Your task to perform on an android device: turn off priority inbox in the gmail app Image 0: 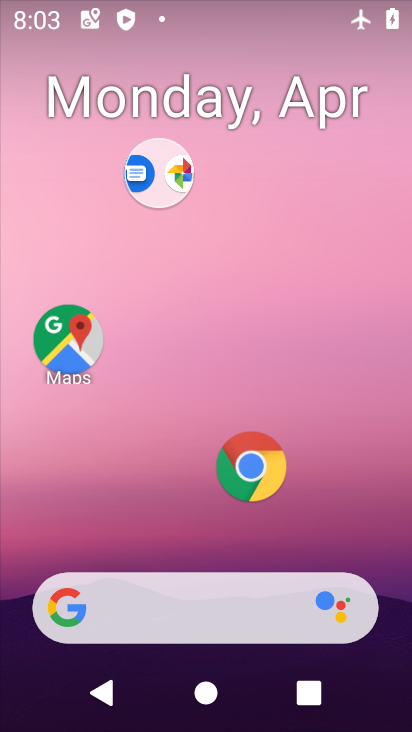
Step 0: drag from (198, 480) to (234, 128)
Your task to perform on an android device: turn off priority inbox in the gmail app Image 1: 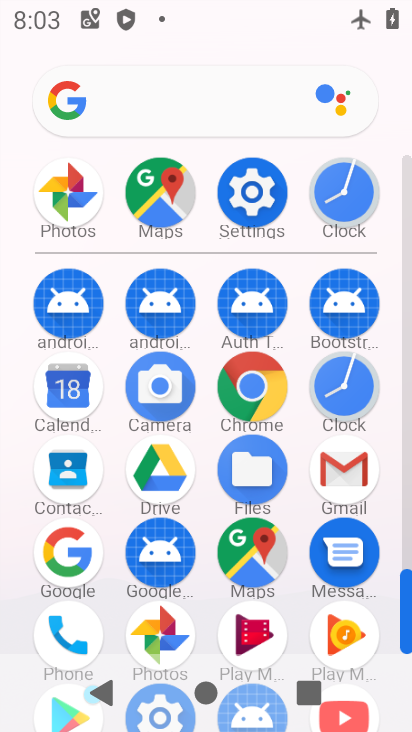
Step 1: click (341, 451)
Your task to perform on an android device: turn off priority inbox in the gmail app Image 2: 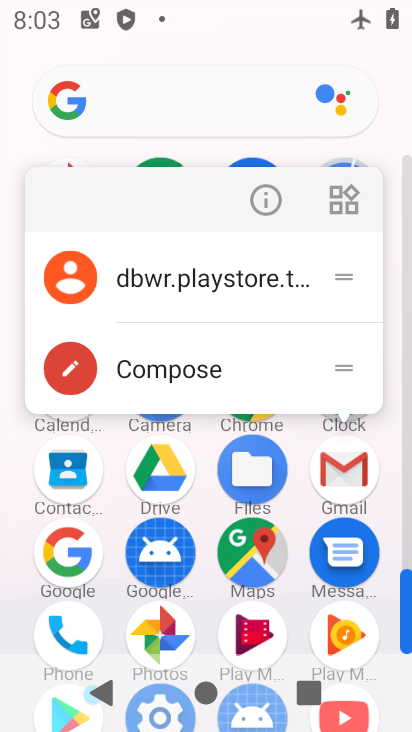
Step 2: click (273, 196)
Your task to perform on an android device: turn off priority inbox in the gmail app Image 3: 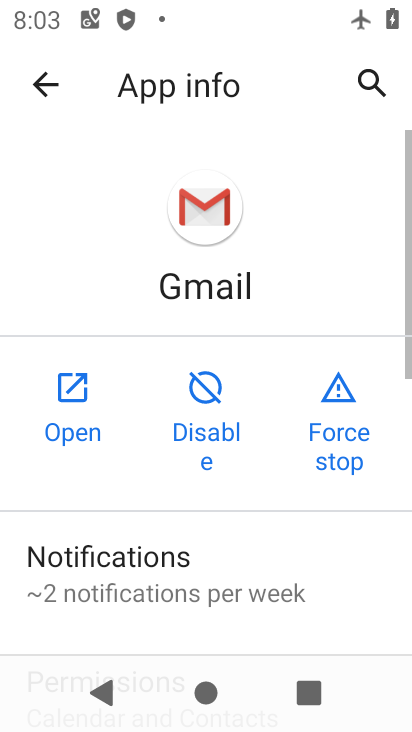
Step 3: click (84, 373)
Your task to perform on an android device: turn off priority inbox in the gmail app Image 4: 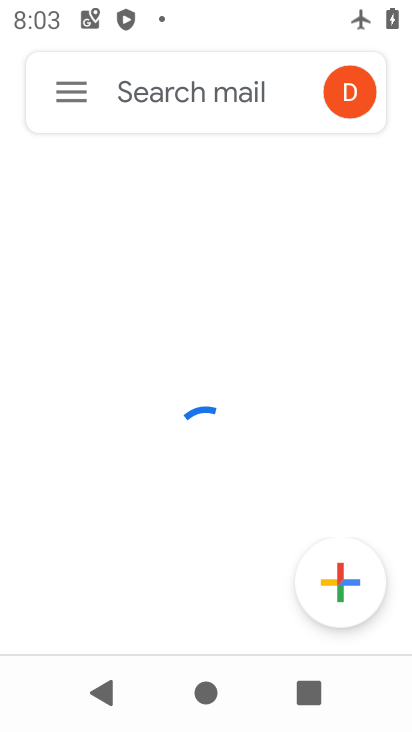
Step 4: drag from (200, 567) to (216, 257)
Your task to perform on an android device: turn off priority inbox in the gmail app Image 5: 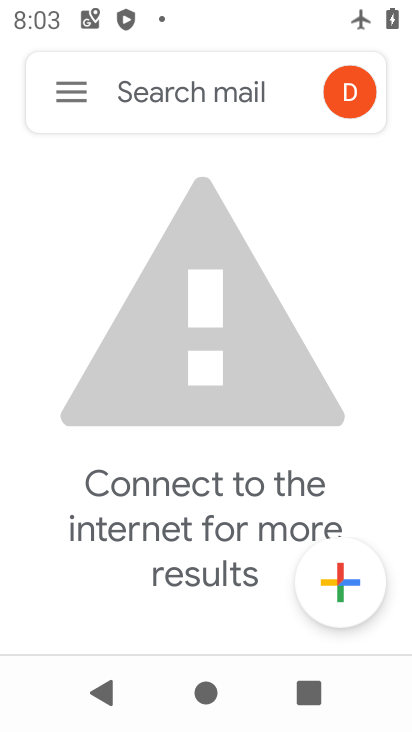
Step 5: drag from (250, 501) to (264, 329)
Your task to perform on an android device: turn off priority inbox in the gmail app Image 6: 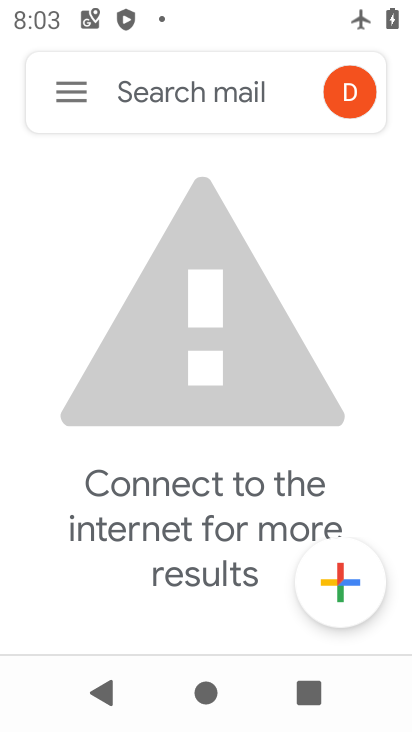
Step 6: drag from (155, 607) to (208, 339)
Your task to perform on an android device: turn off priority inbox in the gmail app Image 7: 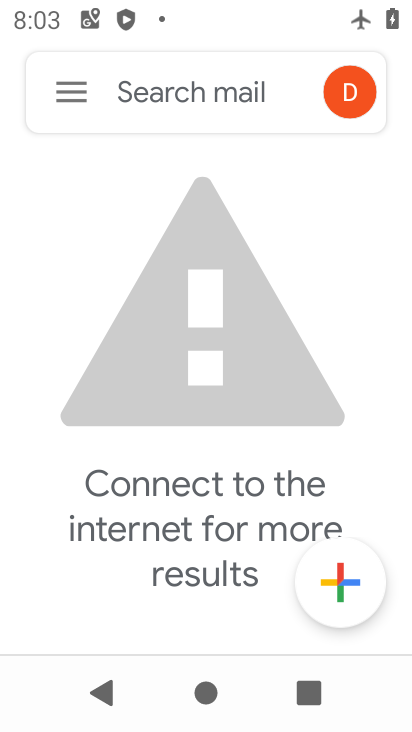
Step 7: drag from (193, 577) to (217, 329)
Your task to perform on an android device: turn off priority inbox in the gmail app Image 8: 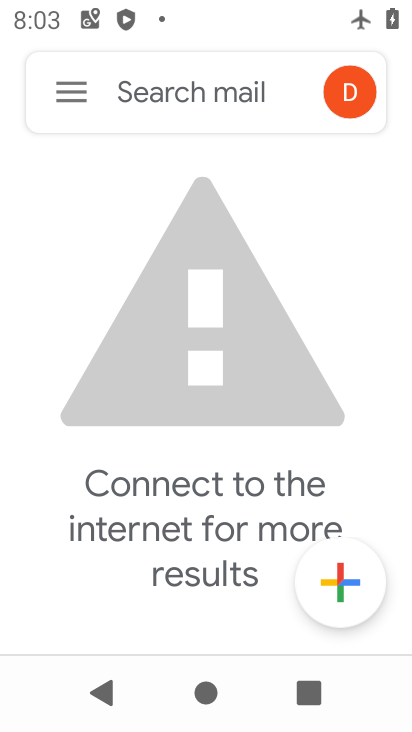
Step 8: drag from (171, 553) to (205, 296)
Your task to perform on an android device: turn off priority inbox in the gmail app Image 9: 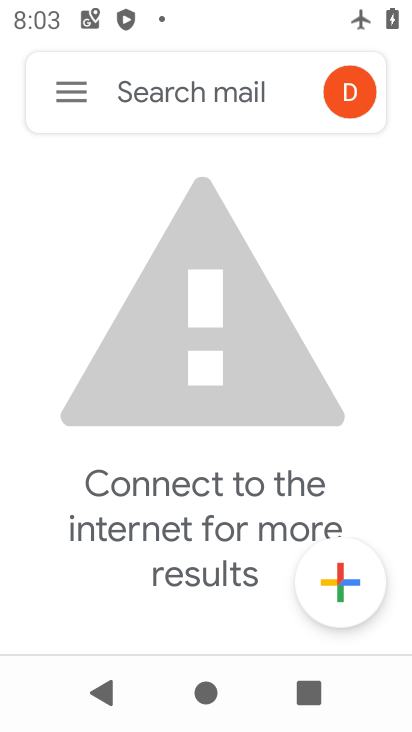
Step 9: drag from (229, 585) to (208, 407)
Your task to perform on an android device: turn off priority inbox in the gmail app Image 10: 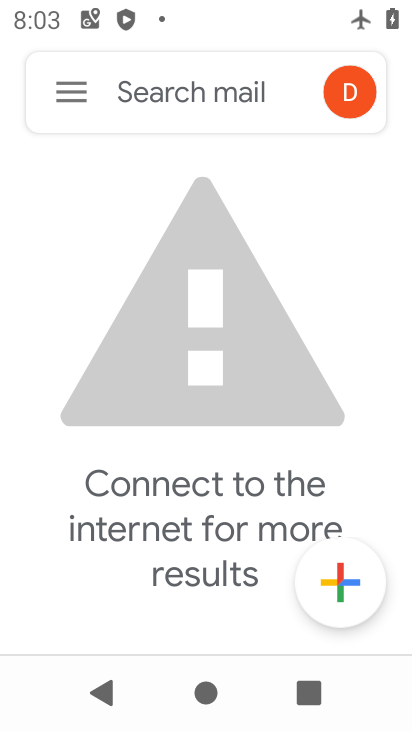
Step 10: click (71, 98)
Your task to perform on an android device: turn off priority inbox in the gmail app Image 11: 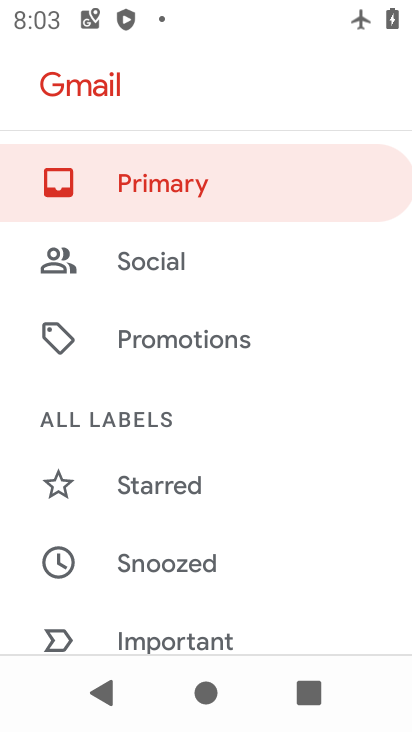
Step 11: drag from (146, 586) to (156, 185)
Your task to perform on an android device: turn off priority inbox in the gmail app Image 12: 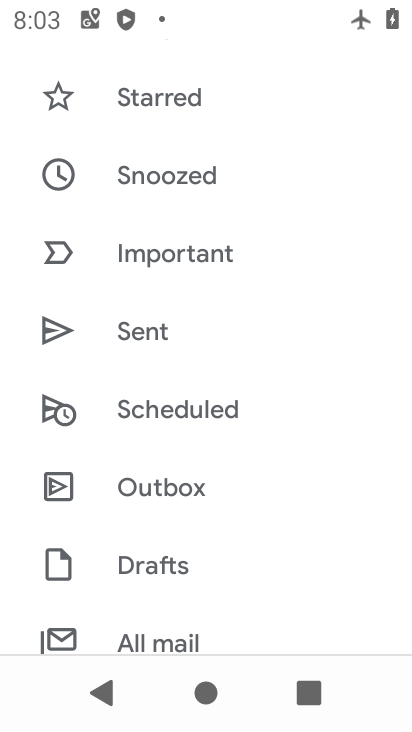
Step 12: drag from (198, 455) to (228, 118)
Your task to perform on an android device: turn off priority inbox in the gmail app Image 13: 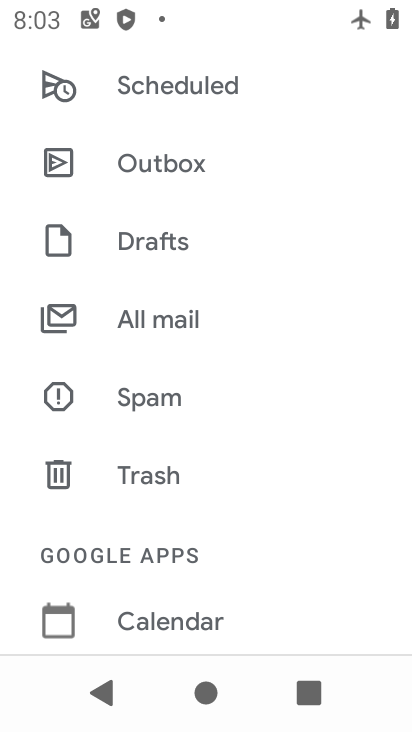
Step 13: drag from (152, 630) to (232, 184)
Your task to perform on an android device: turn off priority inbox in the gmail app Image 14: 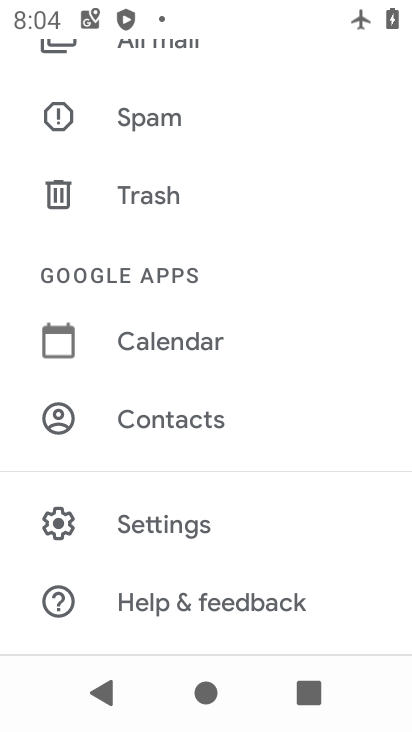
Step 14: click (188, 496)
Your task to perform on an android device: turn off priority inbox in the gmail app Image 15: 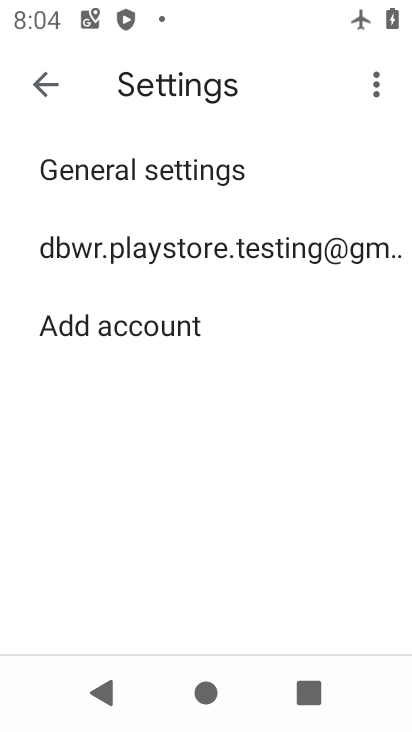
Step 15: drag from (240, 568) to (255, 201)
Your task to perform on an android device: turn off priority inbox in the gmail app Image 16: 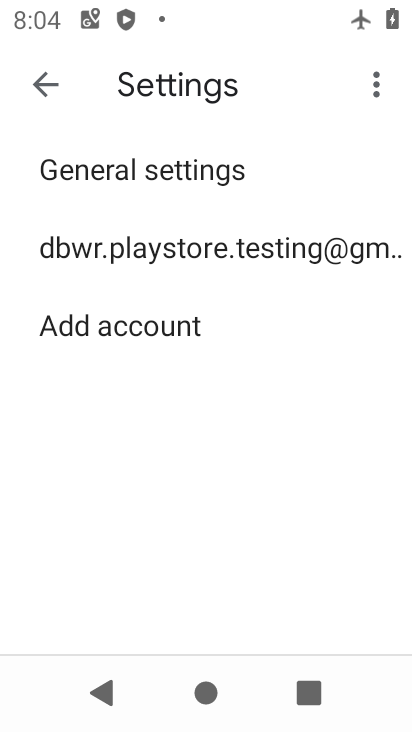
Step 16: click (225, 254)
Your task to perform on an android device: turn off priority inbox in the gmail app Image 17: 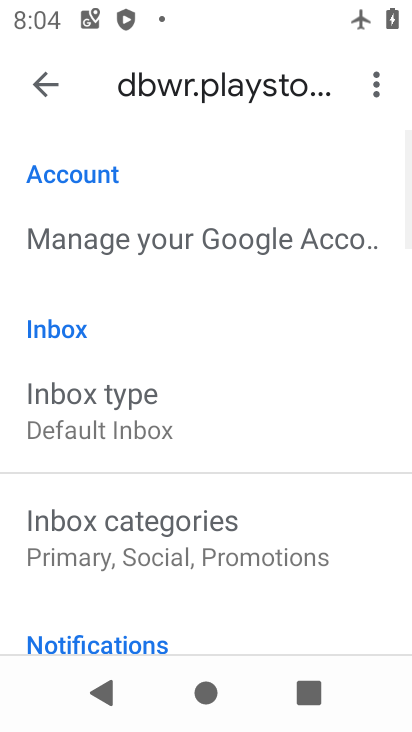
Step 17: drag from (209, 519) to (227, 331)
Your task to perform on an android device: turn off priority inbox in the gmail app Image 18: 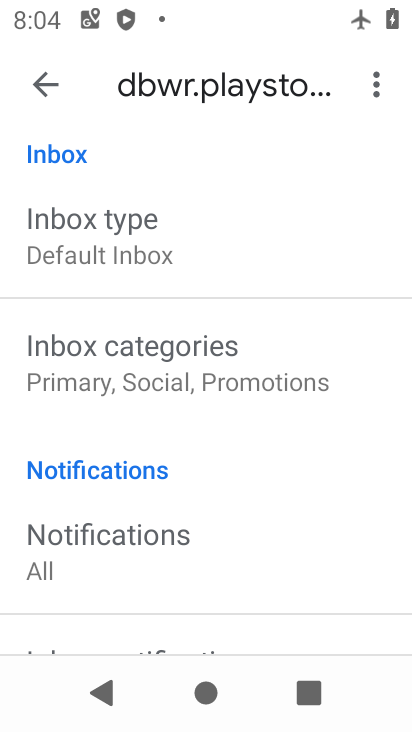
Step 18: click (151, 261)
Your task to perform on an android device: turn off priority inbox in the gmail app Image 19: 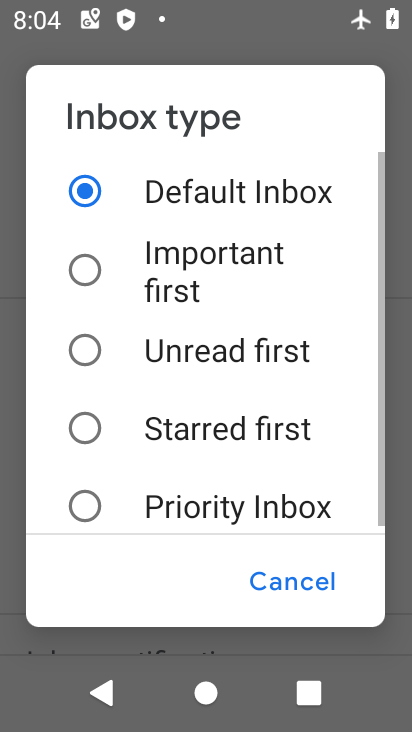
Step 19: click (137, 184)
Your task to perform on an android device: turn off priority inbox in the gmail app Image 20: 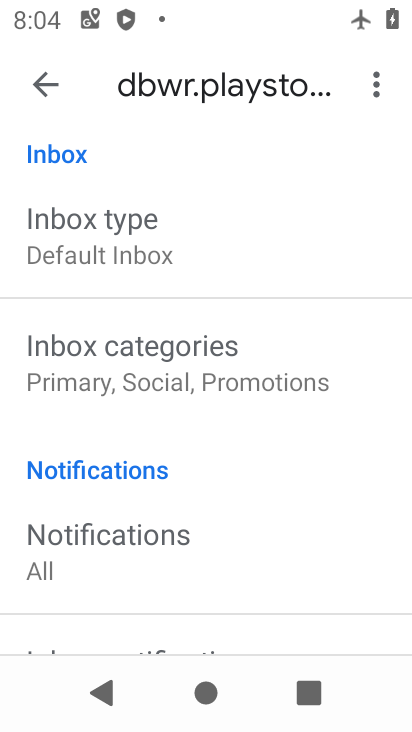
Step 20: task complete